Your task to perform on an android device: Open maps Image 0: 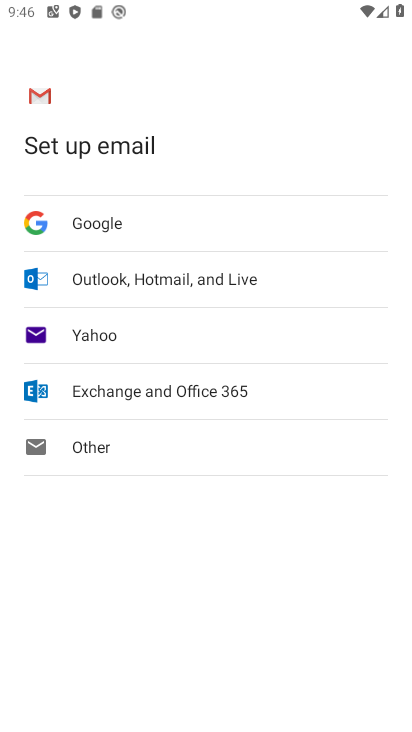
Step 0: press home button
Your task to perform on an android device: Open maps Image 1: 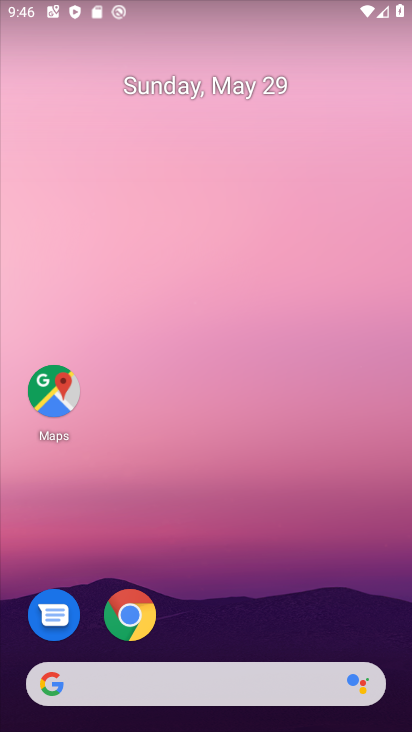
Step 1: click (69, 387)
Your task to perform on an android device: Open maps Image 2: 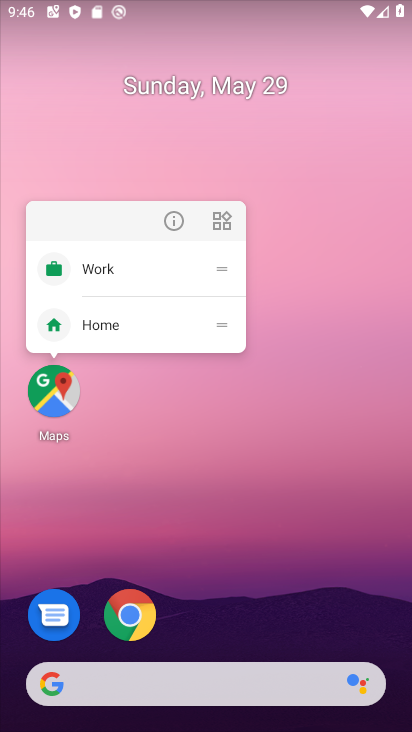
Step 2: click (60, 403)
Your task to perform on an android device: Open maps Image 3: 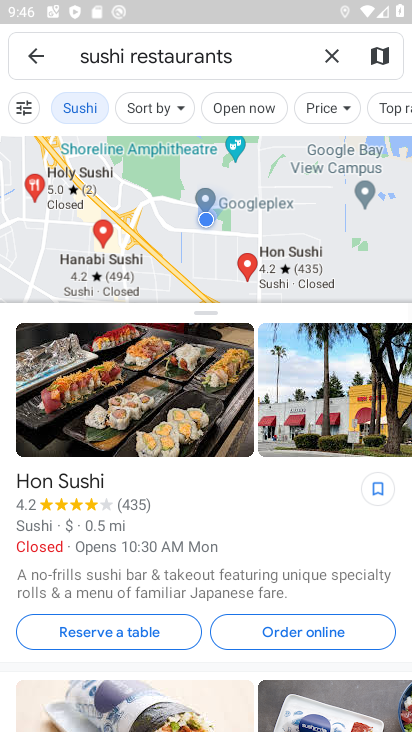
Step 3: task complete